Your task to perform on an android device: Go to display settings Image 0: 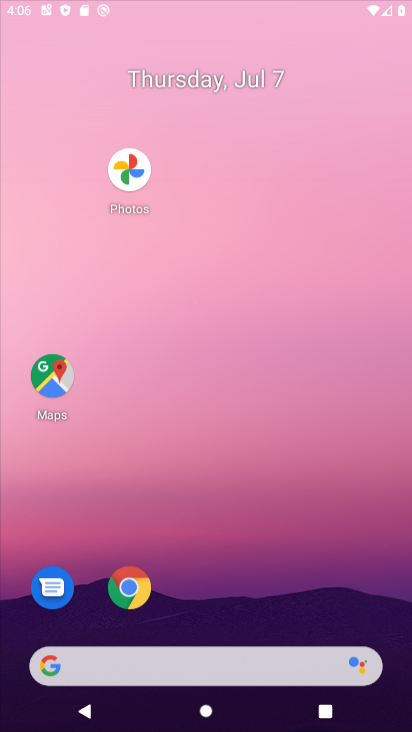
Step 0: press back button
Your task to perform on an android device: Go to display settings Image 1: 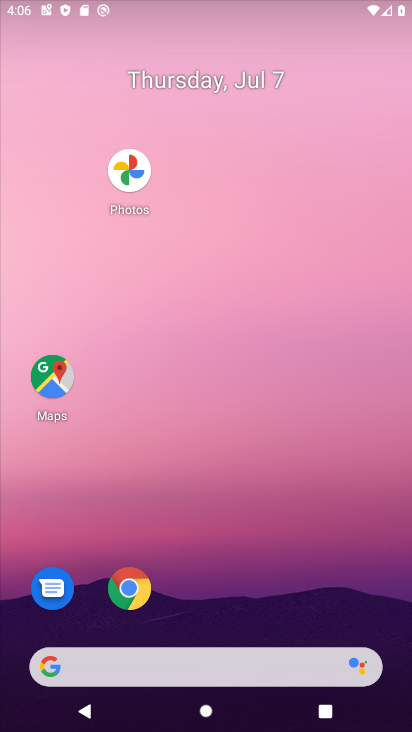
Step 1: click (105, 77)
Your task to perform on an android device: Go to display settings Image 2: 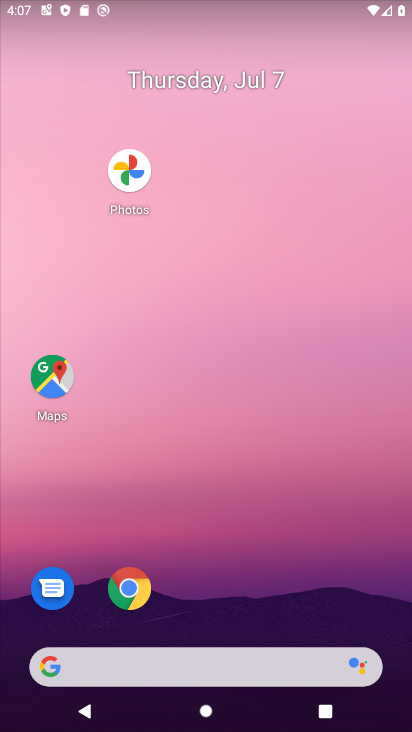
Step 2: drag from (223, 588) to (221, 225)
Your task to perform on an android device: Go to display settings Image 3: 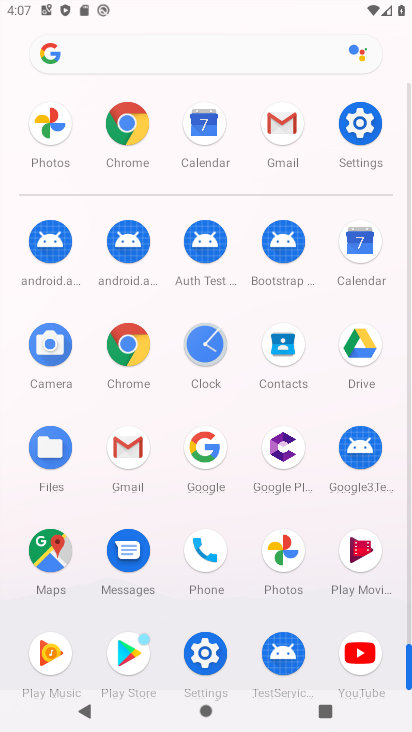
Step 3: drag from (216, 622) to (189, 1)
Your task to perform on an android device: Go to display settings Image 4: 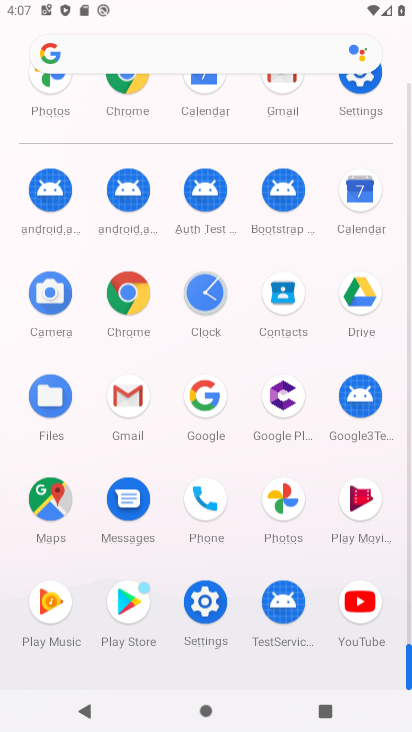
Step 4: click (187, 23)
Your task to perform on an android device: Go to display settings Image 5: 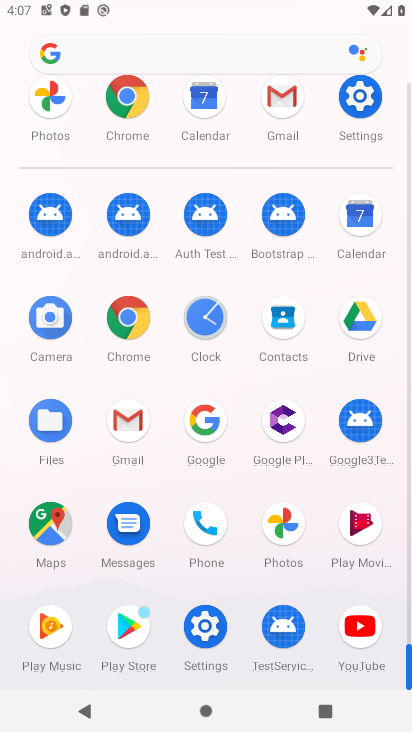
Step 5: click (368, 153)
Your task to perform on an android device: Go to display settings Image 6: 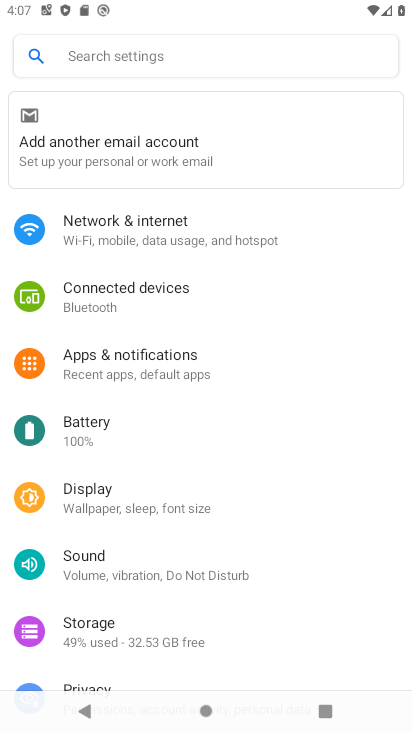
Step 6: click (355, 103)
Your task to perform on an android device: Go to display settings Image 7: 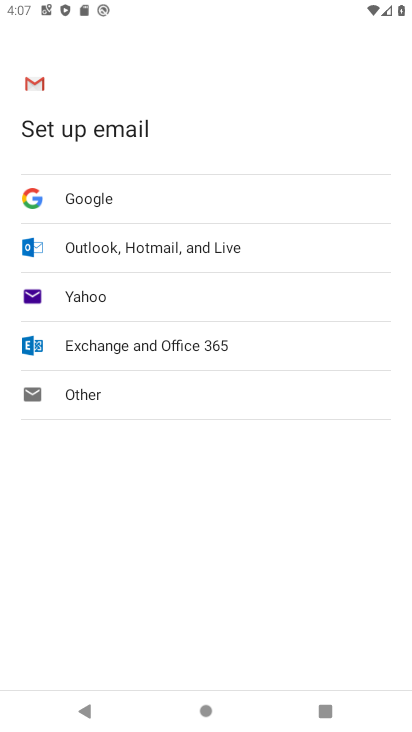
Step 7: click (99, 491)
Your task to perform on an android device: Go to display settings Image 8: 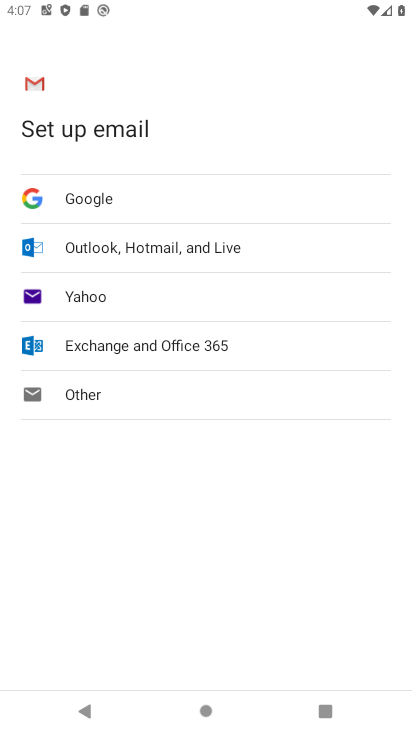
Step 8: click (104, 489)
Your task to perform on an android device: Go to display settings Image 9: 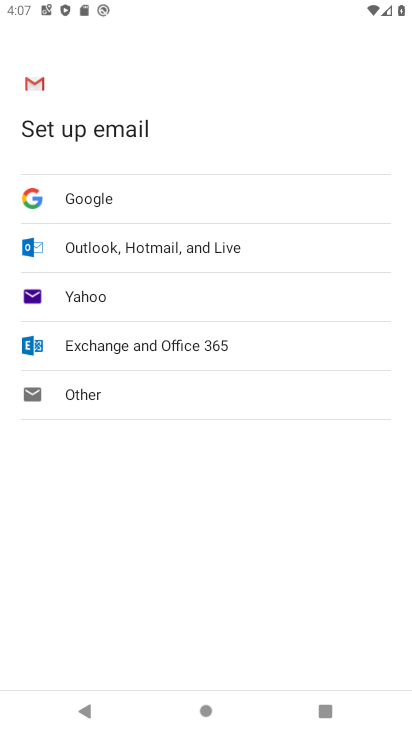
Step 9: press back button
Your task to perform on an android device: Go to display settings Image 10: 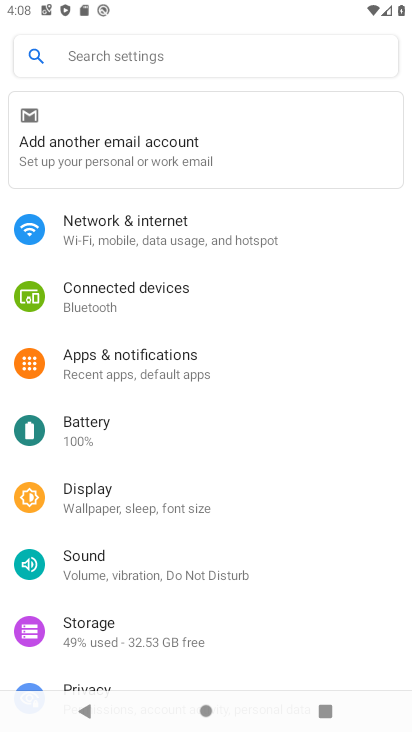
Step 10: click (94, 505)
Your task to perform on an android device: Go to display settings Image 11: 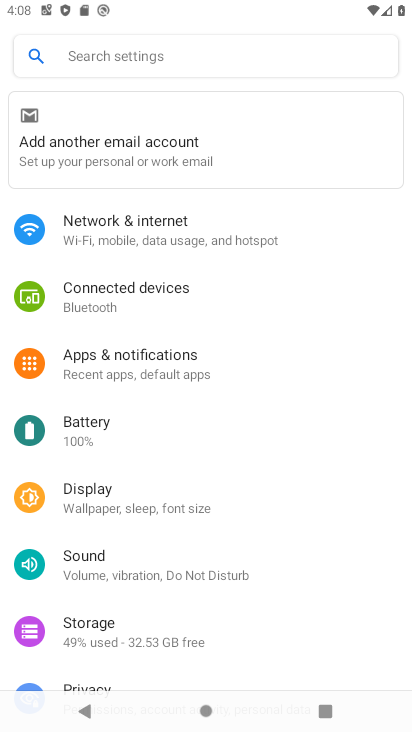
Step 11: click (105, 495)
Your task to perform on an android device: Go to display settings Image 12: 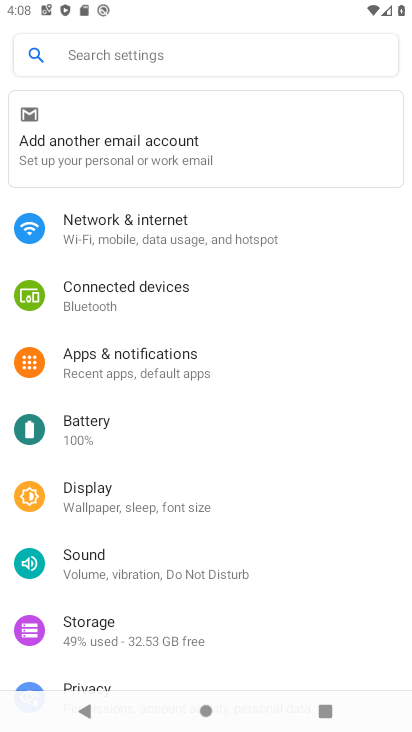
Step 12: click (106, 485)
Your task to perform on an android device: Go to display settings Image 13: 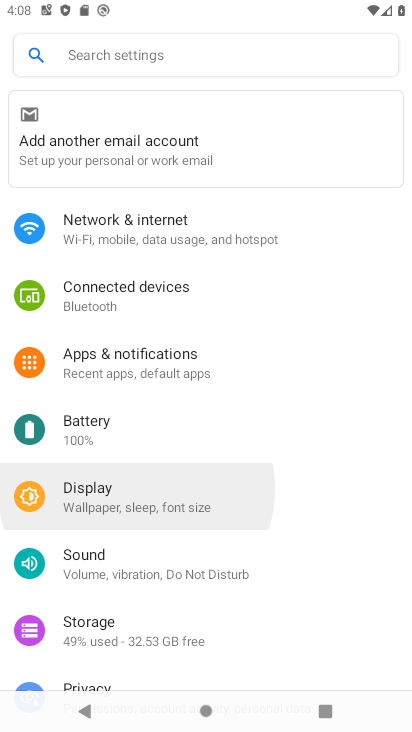
Step 13: click (106, 485)
Your task to perform on an android device: Go to display settings Image 14: 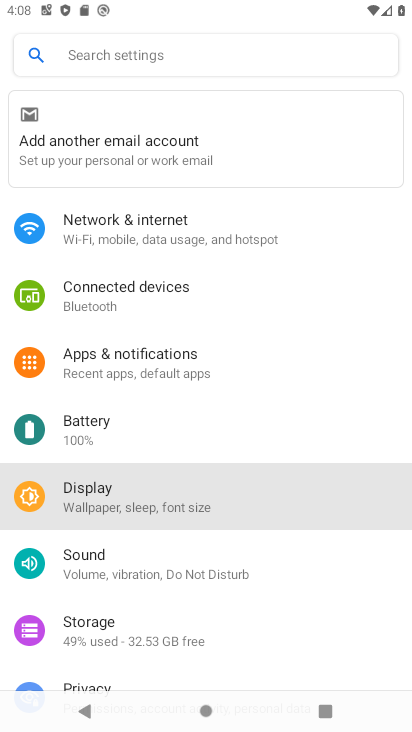
Step 14: click (107, 484)
Your task to perform on an android device: Go to display settings Image 15: 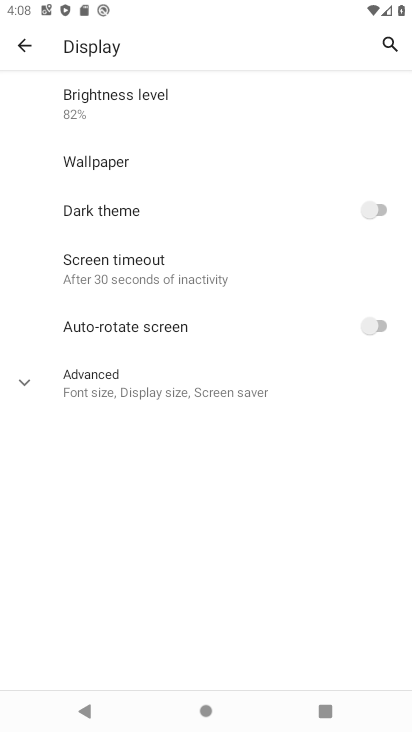
Step 15: click (81, 505)
Your task to perform on an android device: Go to display settings Image 16: 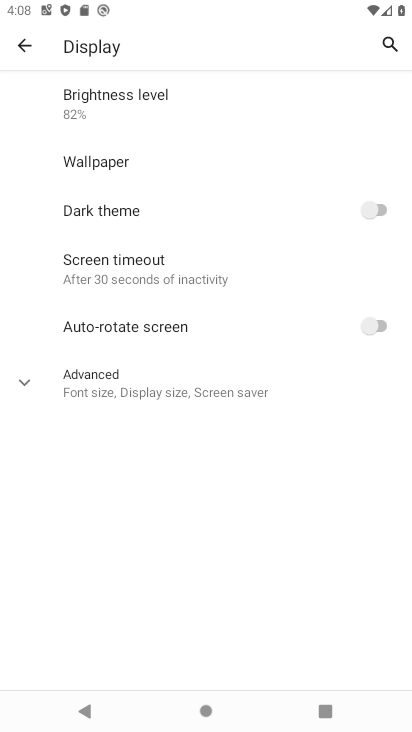
Step 16: task complete